Your task to perform on an android device: refresh tabs in the chrome app Image 0: 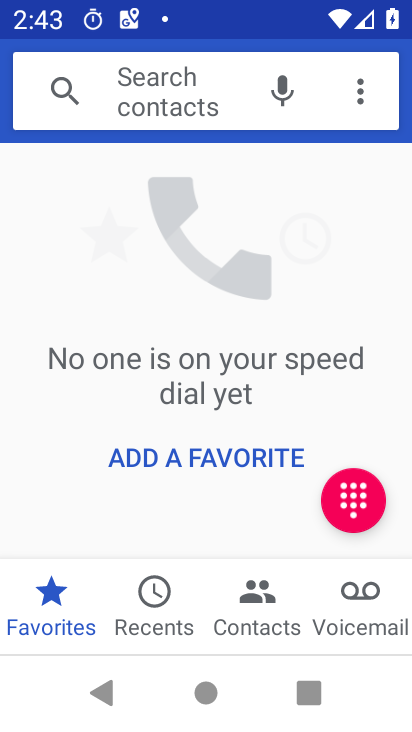
Step 0: press home button
Your task to perform on an android device: refresh tabs in the chrome app Image 1: 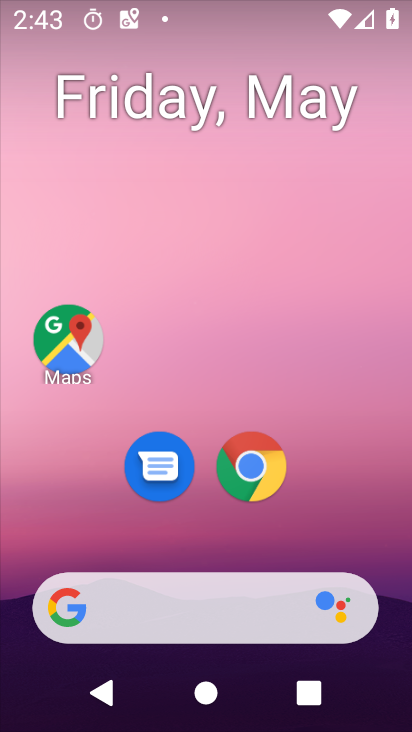
Step 1: drag from (365, 541) to (387, 30)
Your task to perform on an android device: refresh tabs in the chrome app Image 2: 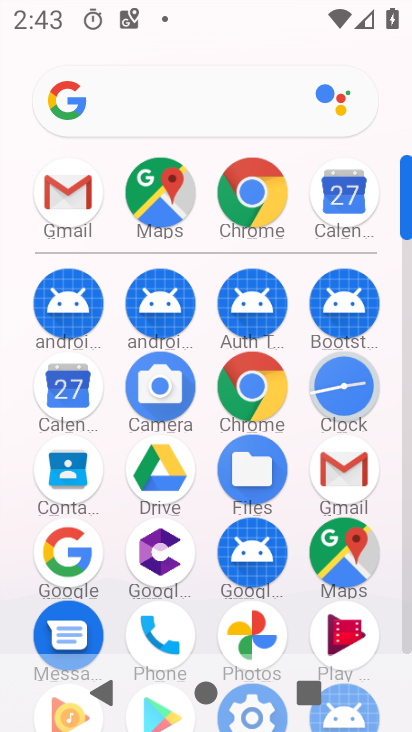
Step 2: click (266, 222)
Your task to perform on an android device: refresh tabs in the chrome app Image 3: 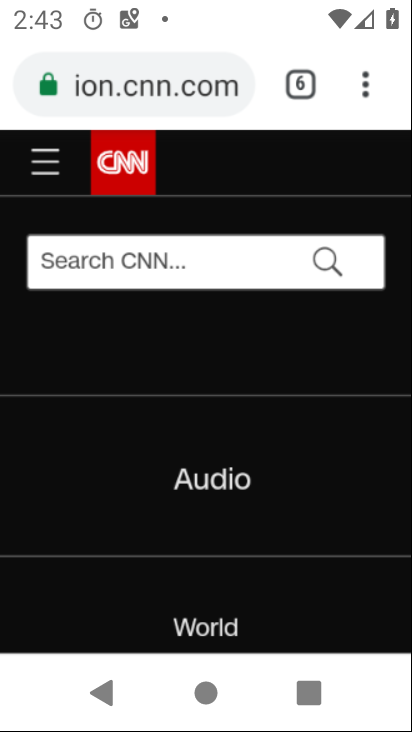
Step 3: task complete